Your task to perform on an android device: find which apps use the phone's location Image 0: 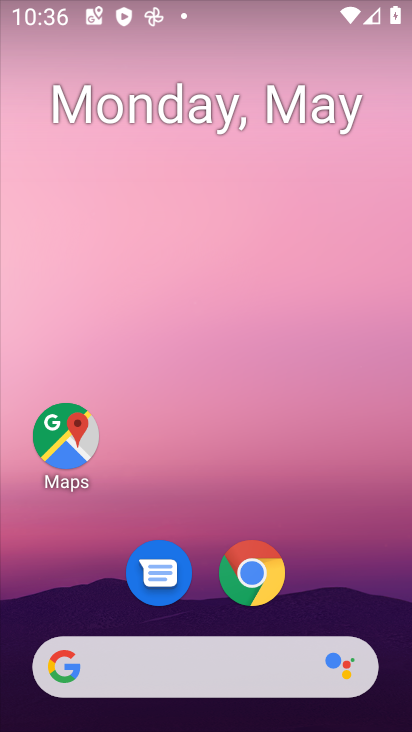
Step 0: drag from (366, 582) to (198, 0)
Your task to perform on an android device: find which apps use the phone's location Image 1: 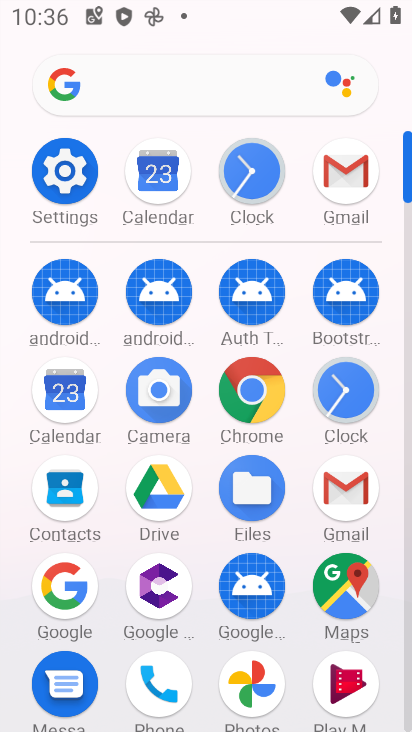
Step 1: click (67, 202)
Your task to perform on an android device: find which apps use the phone's location Image 2: 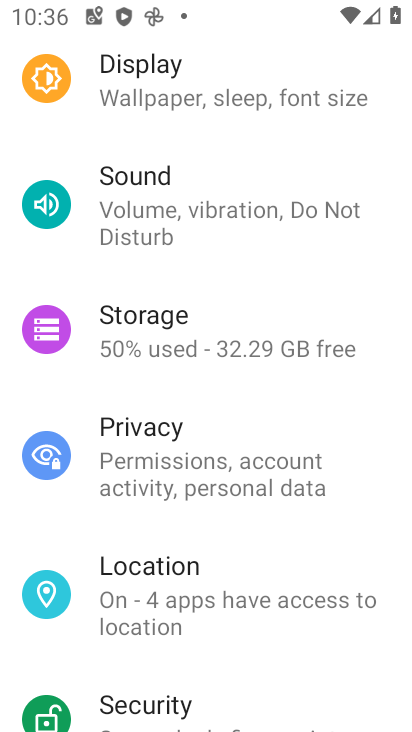
Step 2: click (201, 573)
Your task to perform on an android device: find which apps use the phone's location Image 3: 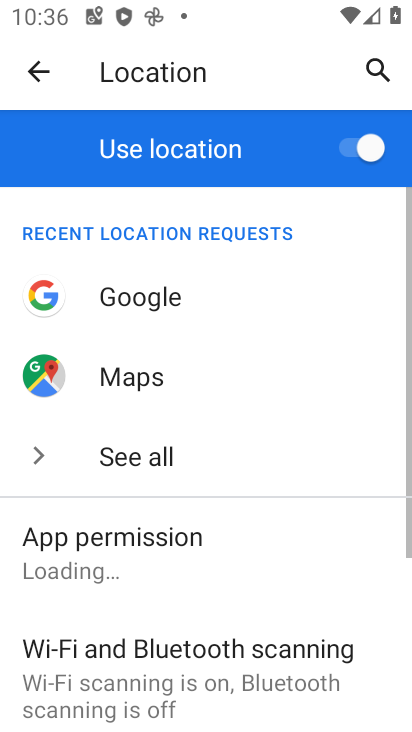
Step 3: task complete